Your task to perform on an android device: see tabs open on other devices in the chrome app Image 0: 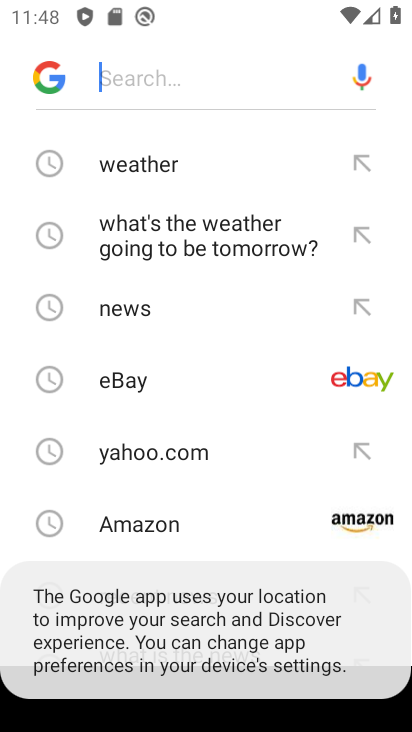
Step 0: press home button
Your task to perform on an android device: see tabs open on other devices in the chrome app Image 1: 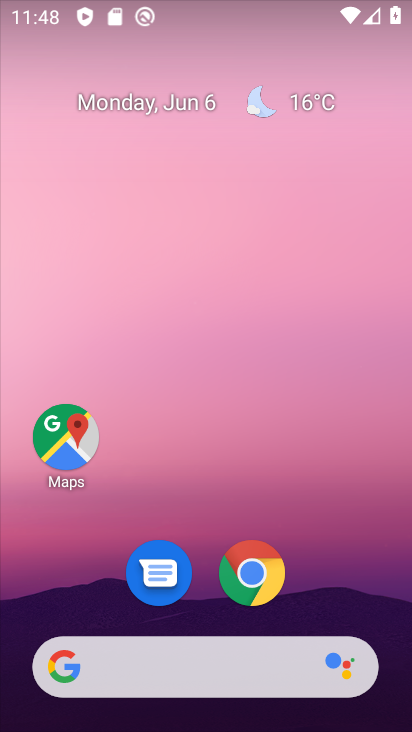
Step 1: click (249, 583)
Your task to perform on an android device: see tabs open on other devices in the chrome app Image 2: 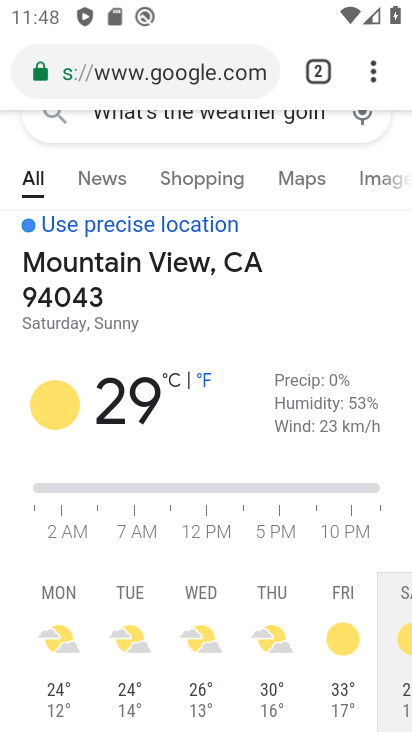
Step 2: task complete